Your task to perform on an android device: What's the weather going to be this weekend? Image 0: 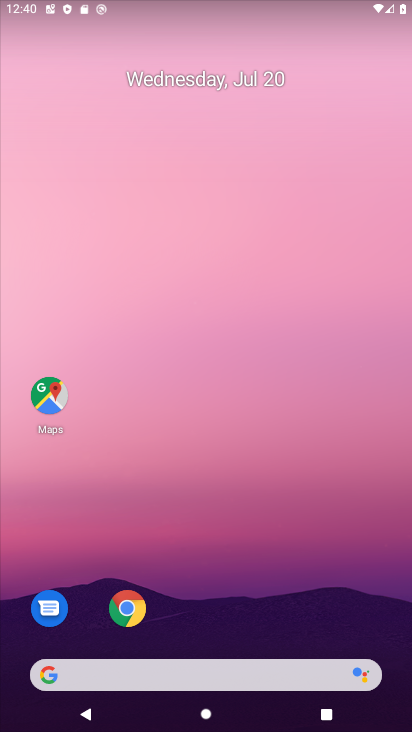
Step 0: click (170, 729)
Your task to perform on an android device: What's the weather going to be this weekend? Image 1: 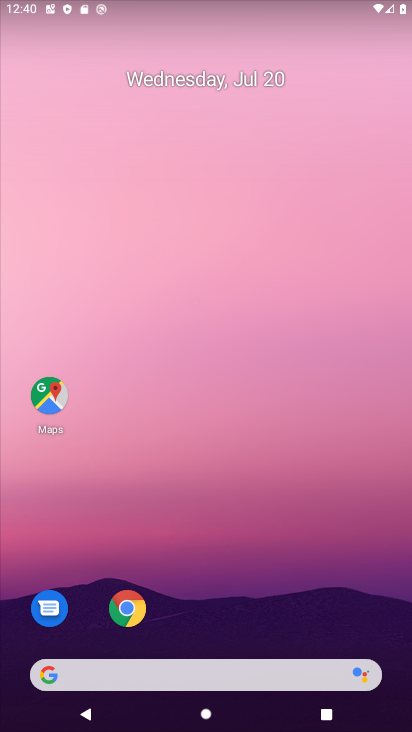
Step 1: click (128, 604)
Your task to perform on an android device: What's the weather going to be this weekend? Image 2: 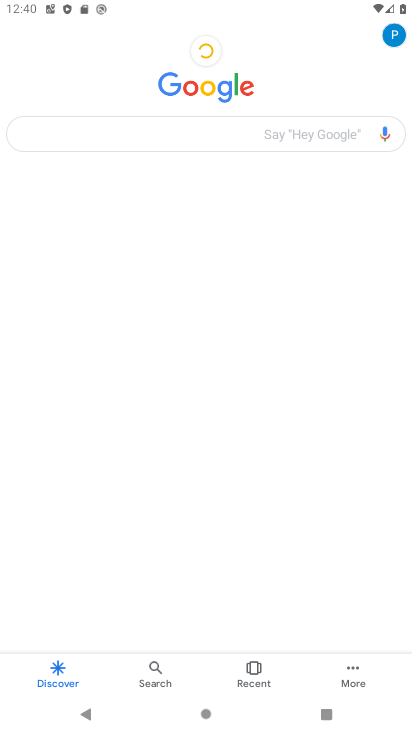
Step 2: click (310, 119)
Your task to perform on an android device: What's the weather going to be this weekend? Image 3: 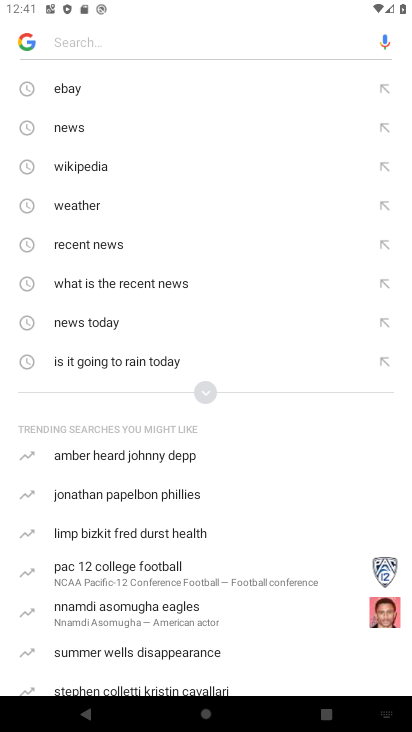
Step 3: type "What's the weather going to be this weekend?"
Your task to perform on an android device: What's the weather going to be this weekend? Image 4: 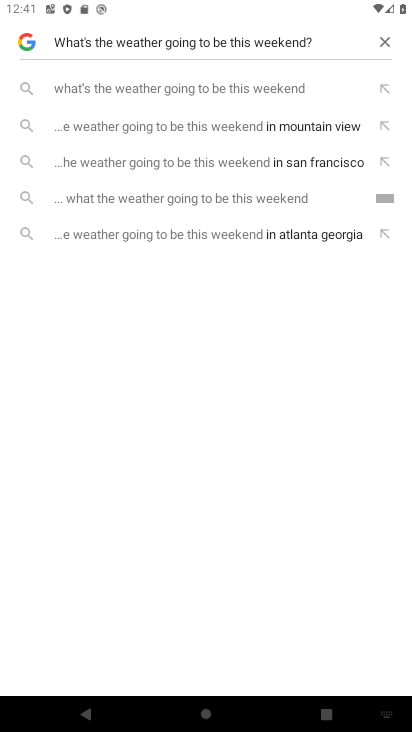
Step 4: click (231, 89)
Your task to perform on an android device: What's the weather going to be this weekend? Image 5: 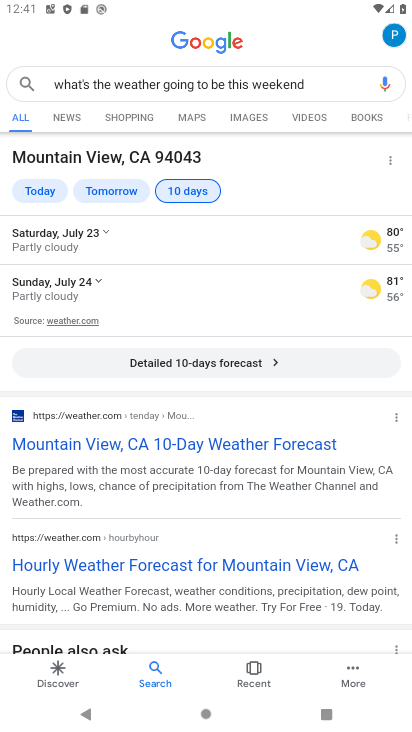
Step 5: task complete